Your task to perform on an android device: Open Reddit.com Image 0: 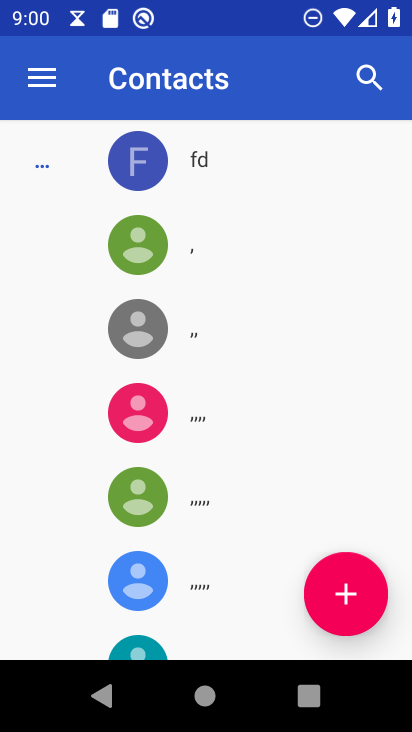
Step 0: press home button
Your task to perform on an android device: Open Reddit.com Image 1: 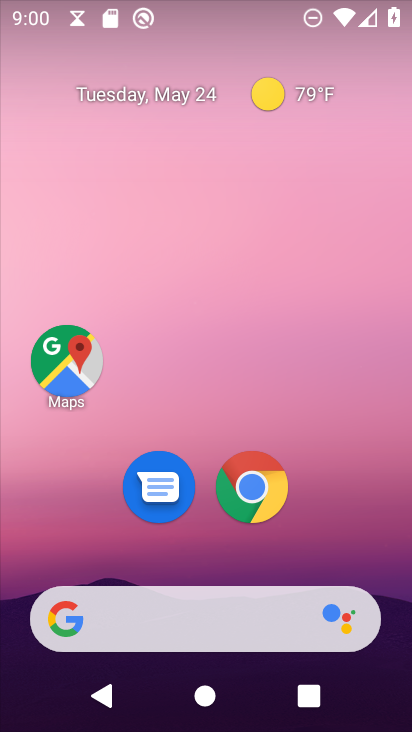
Step 1: click (255, 489)
Your task to perform on an android device: Open Reddit.com Image 2: 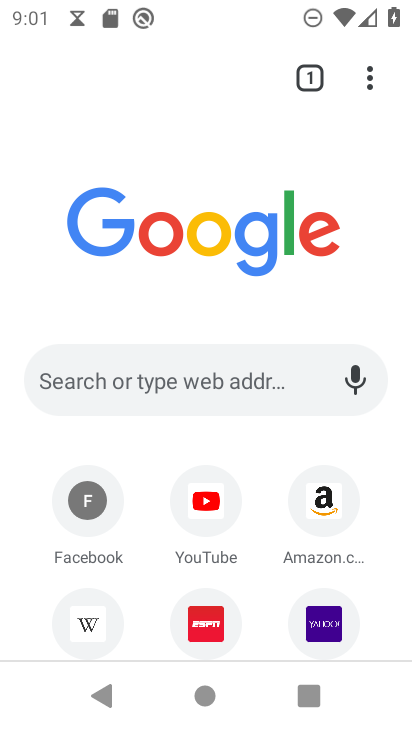
Step 2: click (181, 381)
Your task to perform on an android device: Open Reddit.com Image 3: 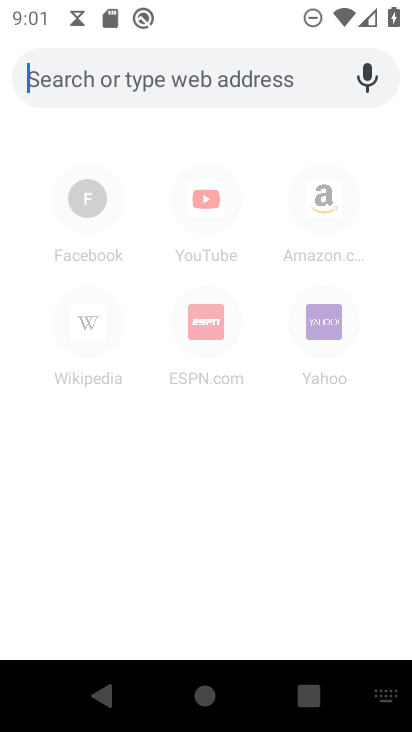
Step 3: type "Reddit.com"
Your task to perform on an android device: Open Reddit.com Image 4: 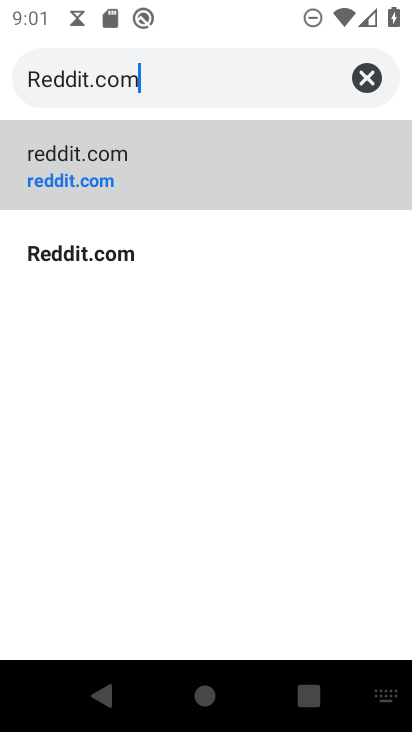
Step 4: type ""
Your task to perform on an android device: Open Reddit.com Image 5: 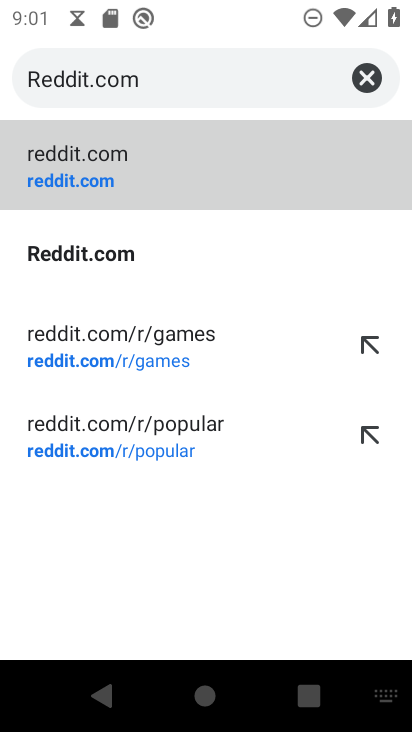
Step 5: click (108, 253)
Your task to perform on an android device: Open Reddit.com Image 6: 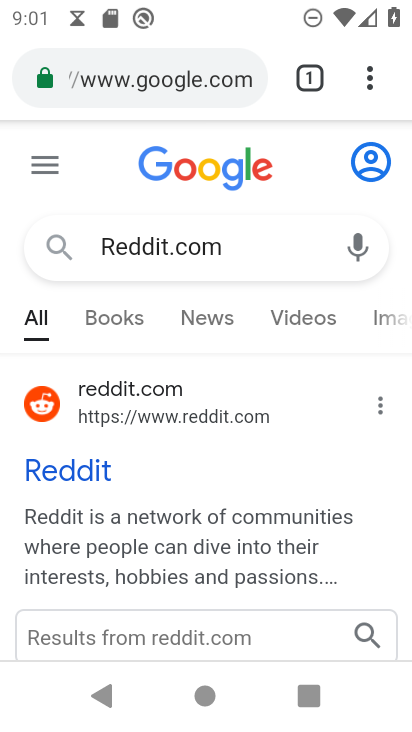
Step 6: click (38, 469)
Your task to perform on an android device: Open Reddit.com Image 7: 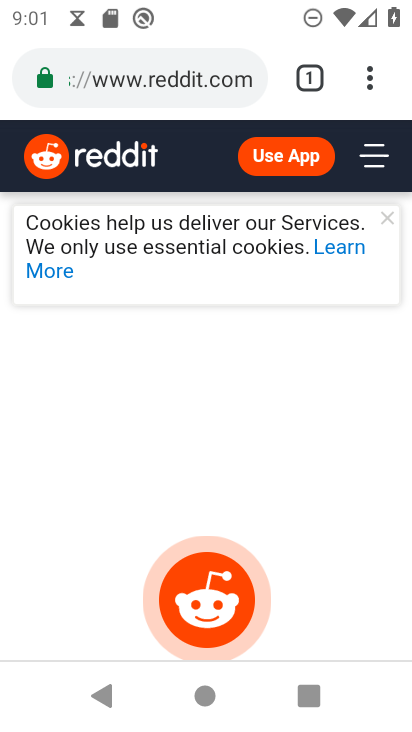
Step 7: task complete